Your task to perform on an android device: Open Chrome and go to the settings page Image 0: 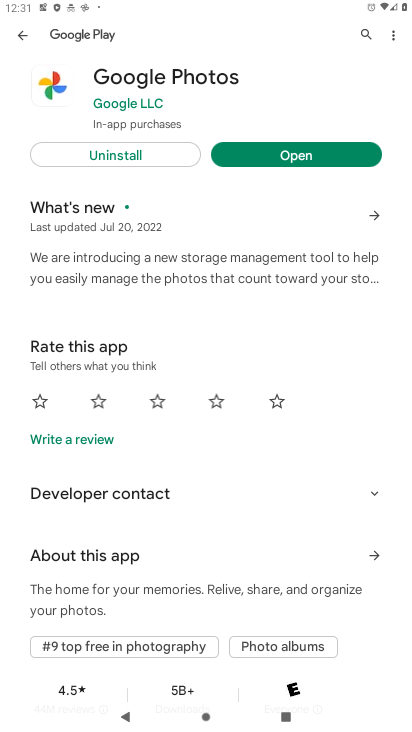
Step 0: task complete